Your task to perform on an android device: Open calendar and show me the fourth week of next month Image 0: 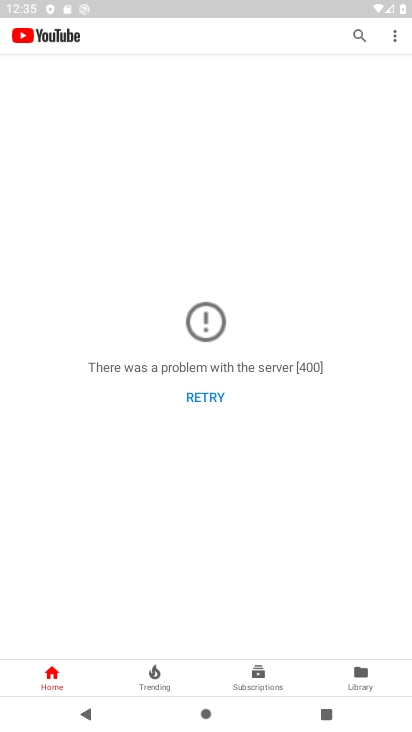
Step 0: click (311, 179)
Your task to perform on an android device: Open calendar and show me the fourth week of next month Image 1: 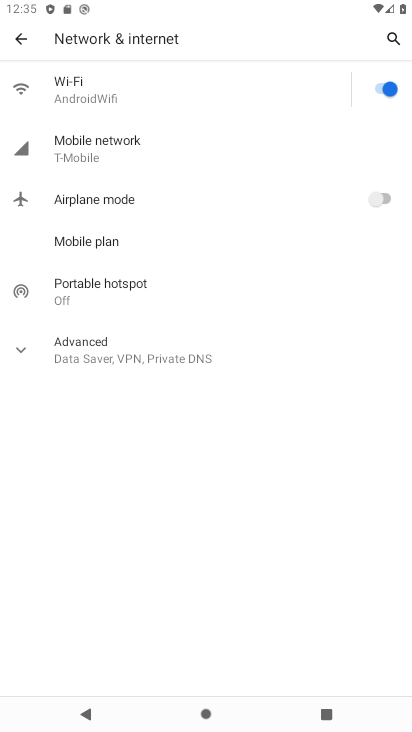
Step 1: press home button
Your task to perform on an android device: Open calendar and show me the fourth week of next month Image 2: 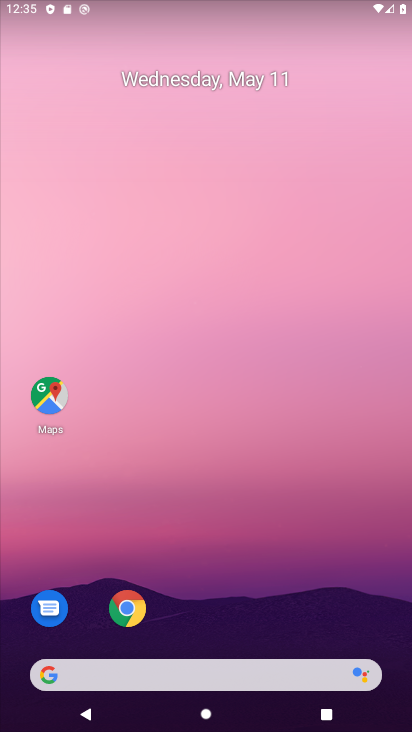
Step 2: drag from (217, 531) to (289, 204)
Your task to perform on an android device: Open calendar and show me the fourth week of next month Image 3: 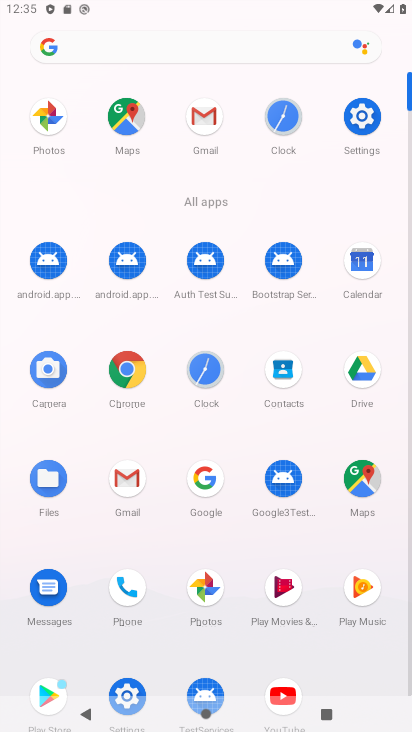
Step 3: click (363, 266)
Your task to perform on an android device: Open calendar and show me the fourth week of next month Image 4: 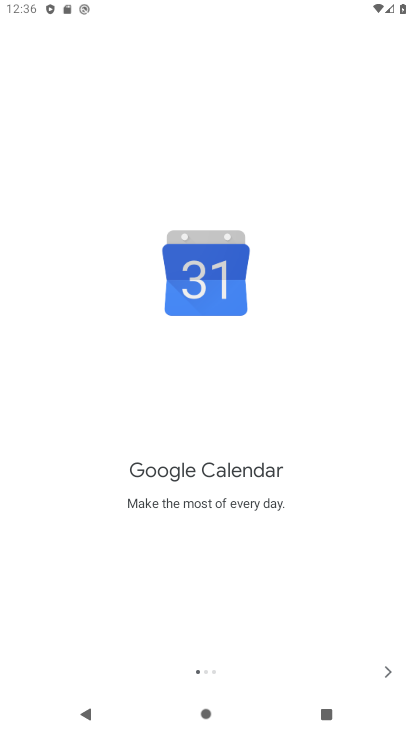
Step 4: click (387, 675)
Your task to perform on an android device: Open calendar and show me the fourth week of next month Image 5: 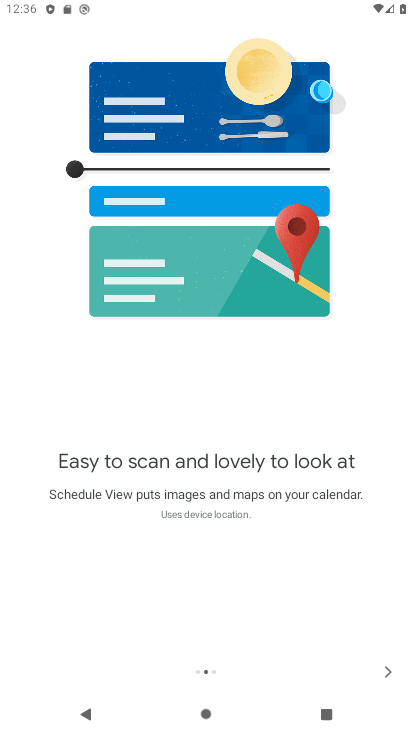
Step 5: click (387, 675)
Your task to perform on an android device: Open calendar and show me the fourth week of next month Image 6: 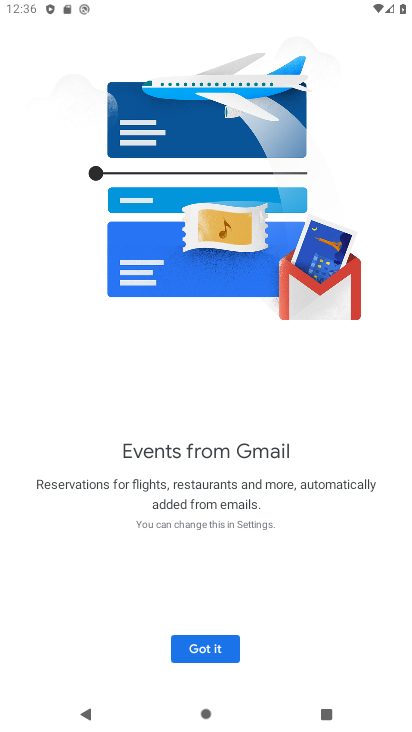
Step 6: click (209, 658)
Your task to perform on an android device: Open calendar and show me the fourth week of next month Image 7: 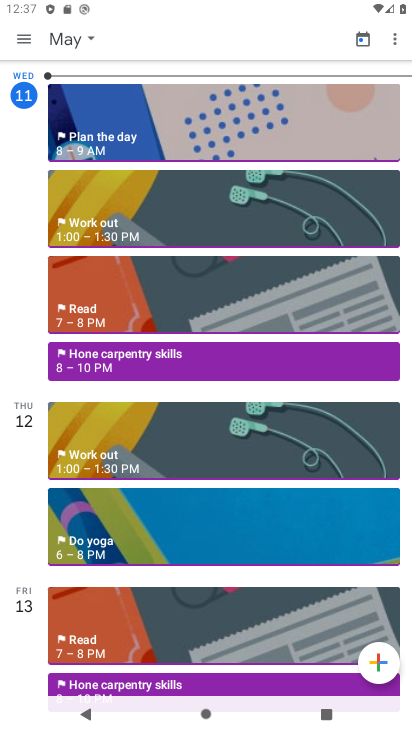
Step 7: click (74, 46)
Your task to perform on an android device: Open calendar and show me the fourth week of next month Image 8: 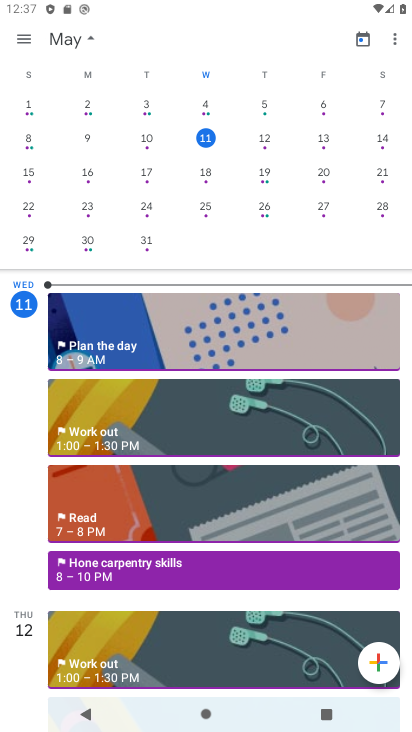
Step 8: drag from (282, 202) to (0, 232)
Your task to perform on an android device: Open calendar and show me the fourth week of next month Image 9: 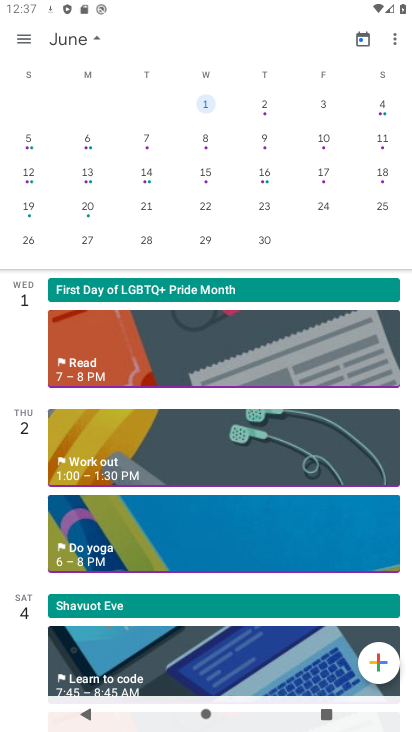
Step 9: click (24, 212)
Your task to perform on an android device: Open calendar and show me the fourth week of next month Image 10: 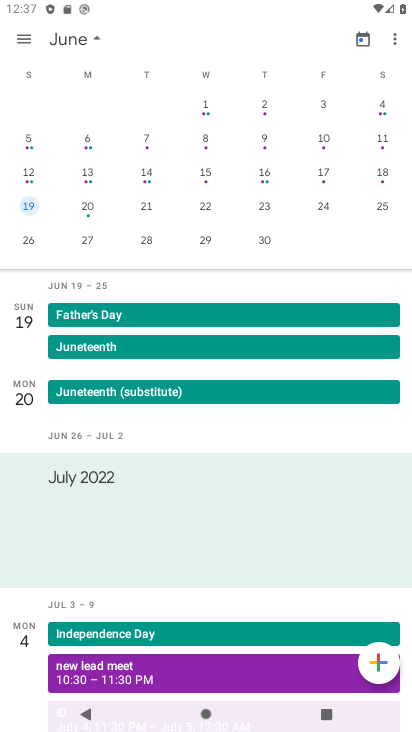
Step 10: click (92, 218)
Your task to perform on an android device: Open calendar and show me the fourth week of next month Image 11: 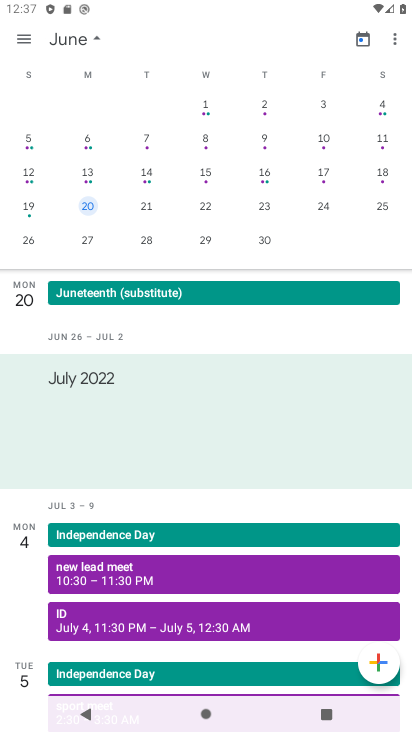
Step 11: click (144, 218)
Your task to perform on an android device: Open calendar and show me the fourth week of next month Image 12: 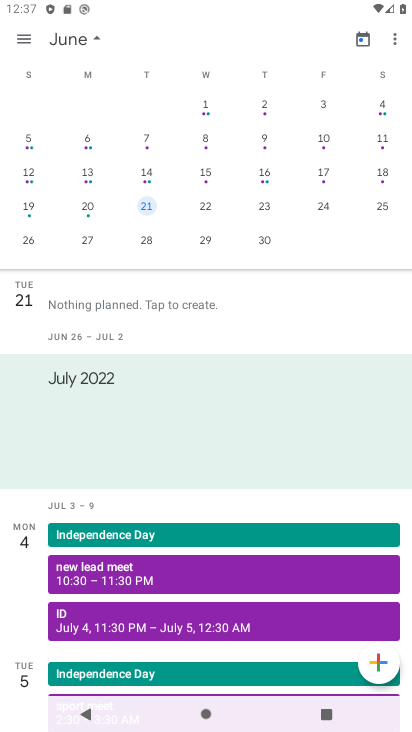
Step 12: click (199, 214)
Your task to perform on an android device: Open calendar and show me the fourth week of next month Image 13: 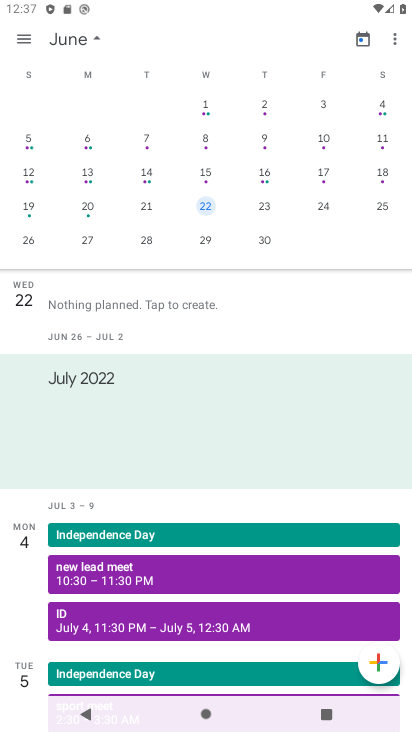
Step 13: click (260, 218)
Your task to perform on an android device: Open calendar and show me the fourth week of next month Image 14: 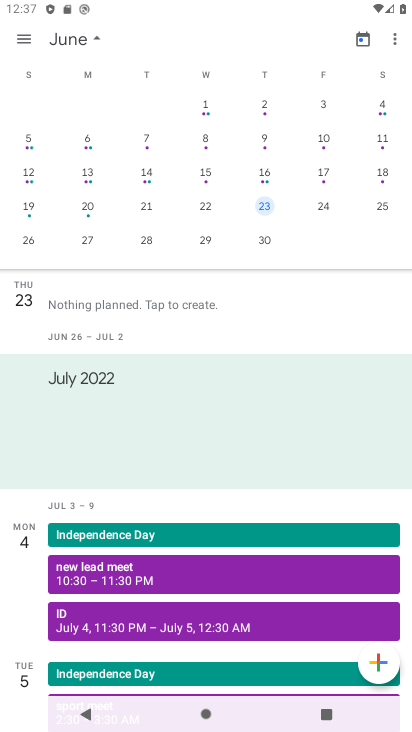
Step 14: click (317, 208)
Your task to perform on an android device: Open calendar and show me the fourth week of next month Image 15: 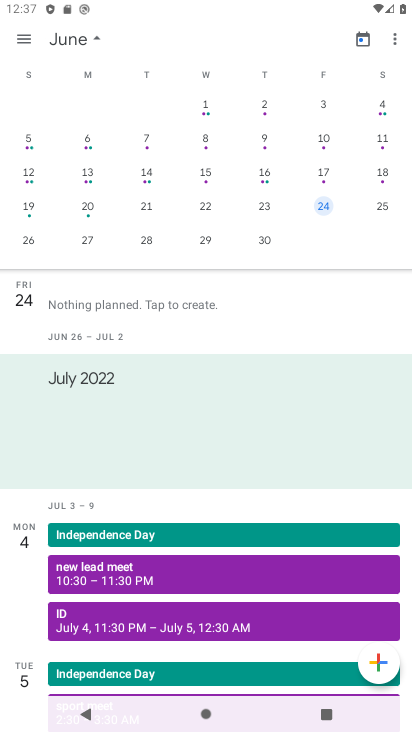
Step 15: click (373, 211)
Your task to perform on an android device: Open calendar and show me the fourth week of next month Image 16: 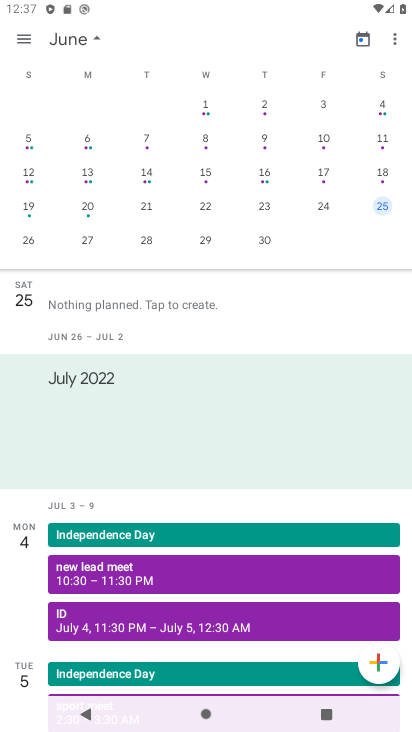
Step 16: task complete